Your task to perform on an android device: Turn off the flashlight Image 0: 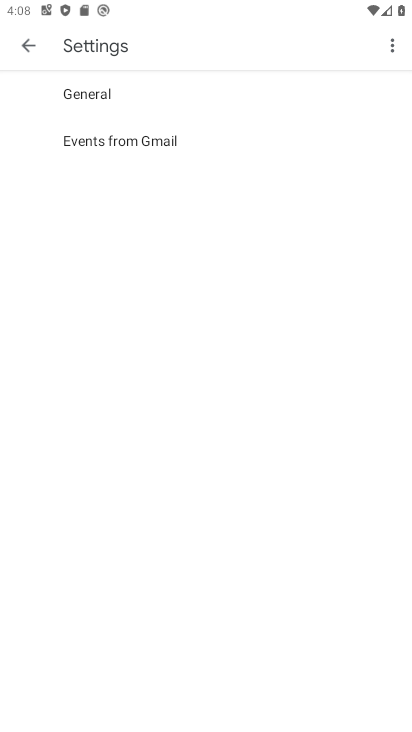
Step 0: press home button
Your task to perform on an android device: Turn off the flashlight Image 1: 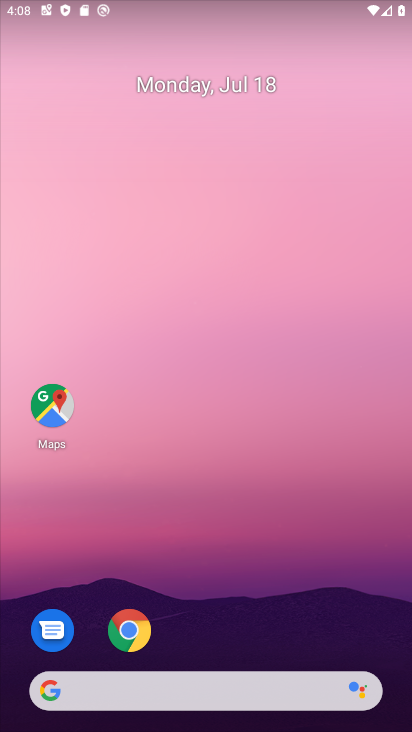
Step 1: drag from (208, 11) to (209, 422)
Your task to perform on an android device: Turn off the flashlight Image 2: 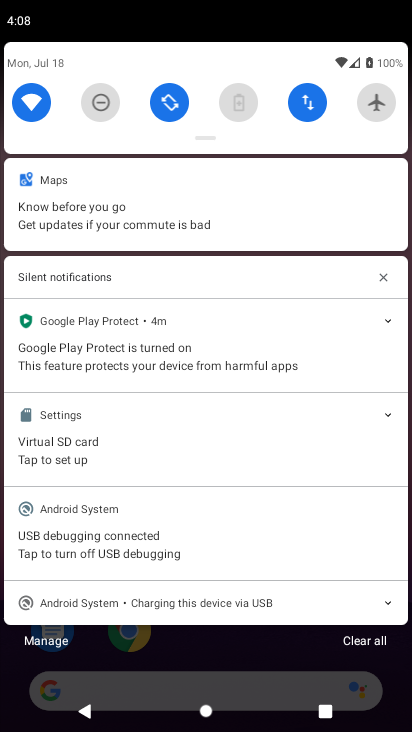
Step 2: drag from (210, 132) to (166, 443)
Your task to perform on an android device: Turn off the flashlight Image 3: 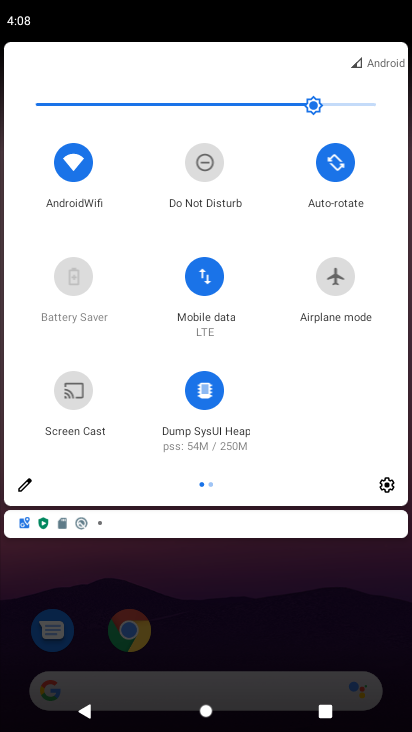
Step 3: click (21, 482)
Your task to perform on an android device: Turn off the flashlight Image 4: 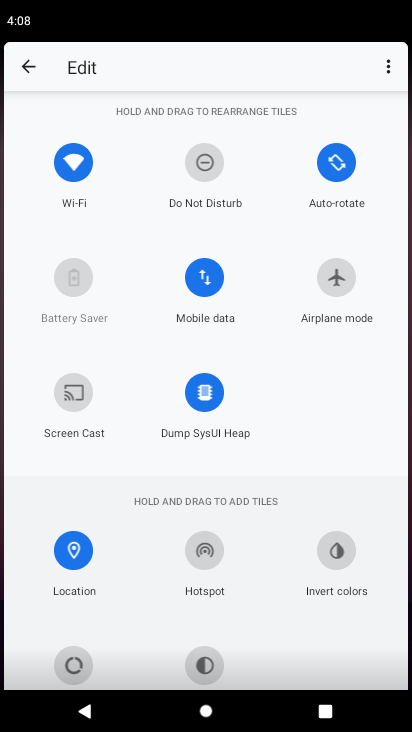
Step 4: task complete